Your task to perform on an android device: Show me popular videos on Youtube Image 0: 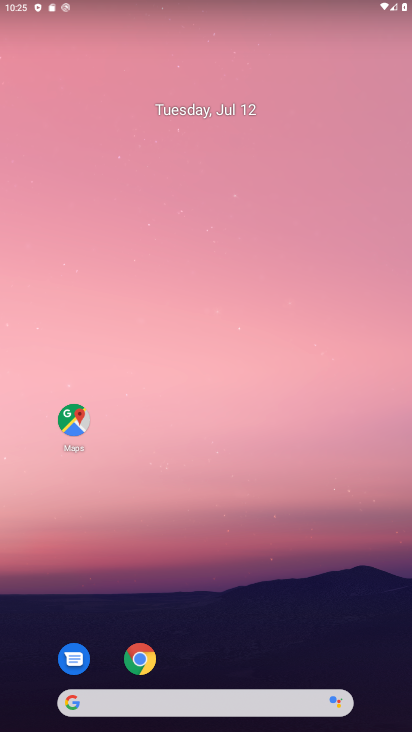
Step 0: drag from (213, 628) to (213, 165)
Your task to perform on an android device: Show me popular videos on Youtube Image 1: 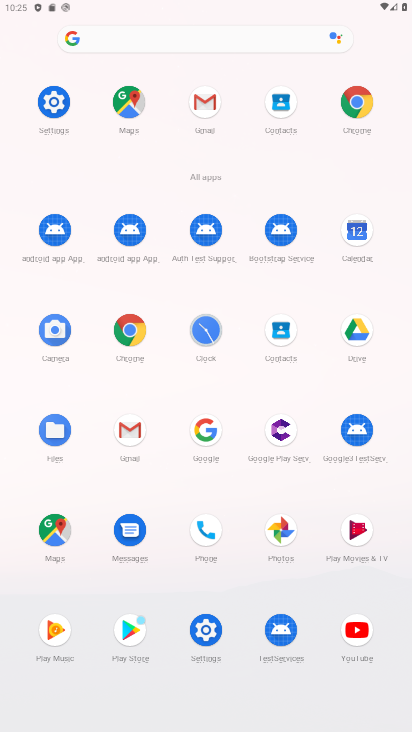
Step 1: click (347, 639)
Your task to perform on an android device: Show me popular videos on Youtube Image 2: 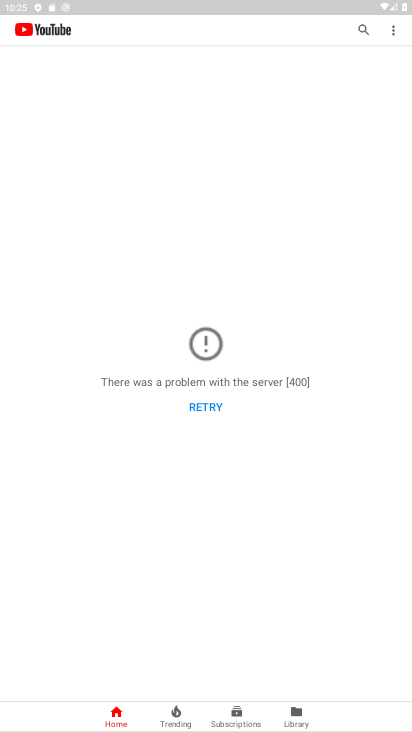
Step 2: click (294, 715)
Your task to perform on an android device: Show me popular videos on Youtube Image 3: 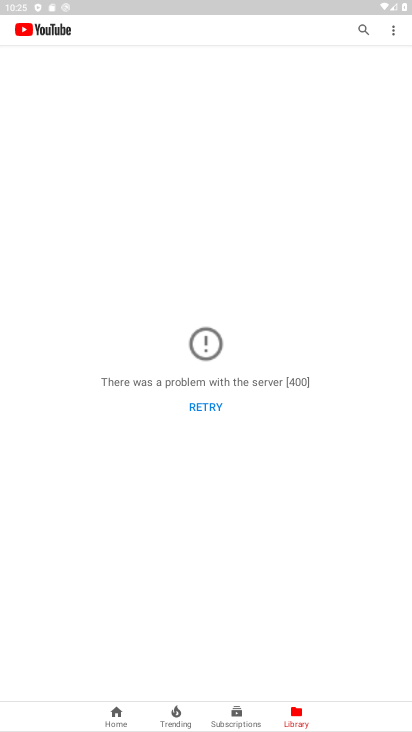
Step 3: click (294, 715)
Your task to perform on an android device: Show me popular videos on Youtube Image 4: 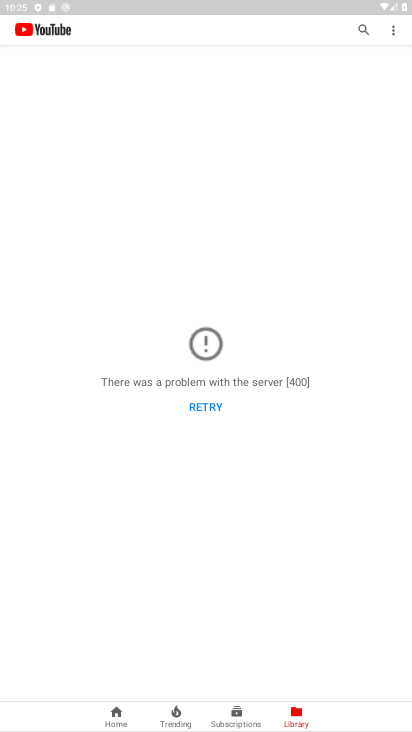
Step 4: task complete